Your task to perform on an android device: Go to Google maps Image 0: 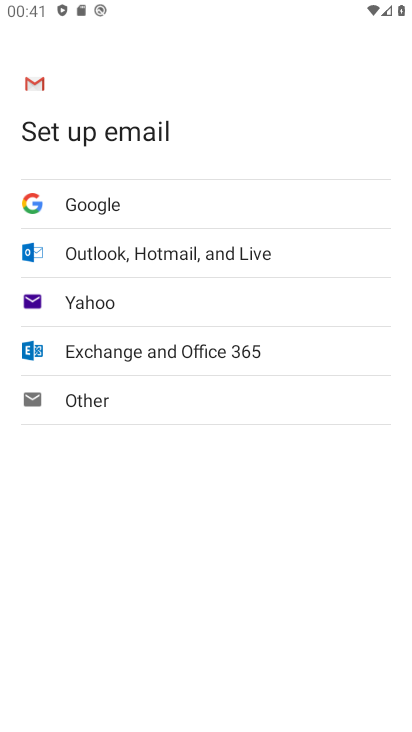
Step 0: press home button
Your task to perform on an android device: Go to Google maps Image 1: 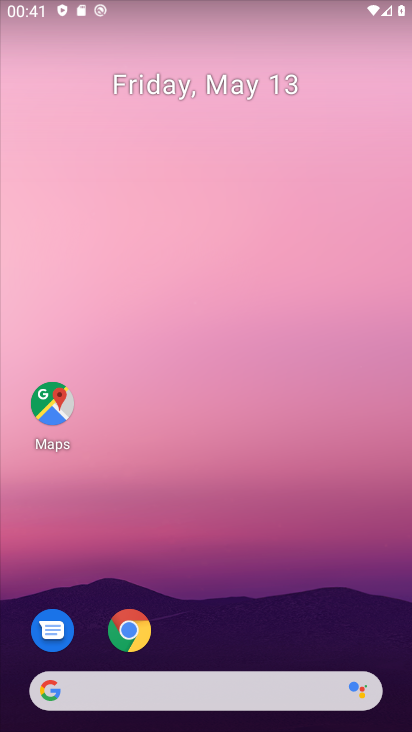
Step 1: drag from (247, 702) to (408, 213)
Your task to perform on an android device: Go to Google maps Image 2: 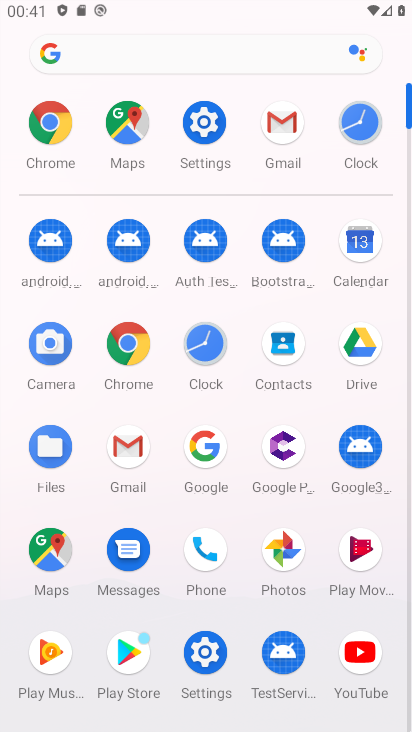
Step 2: click (53, 560)
Your task to perform on an android device: Go to Google maps Image 3: 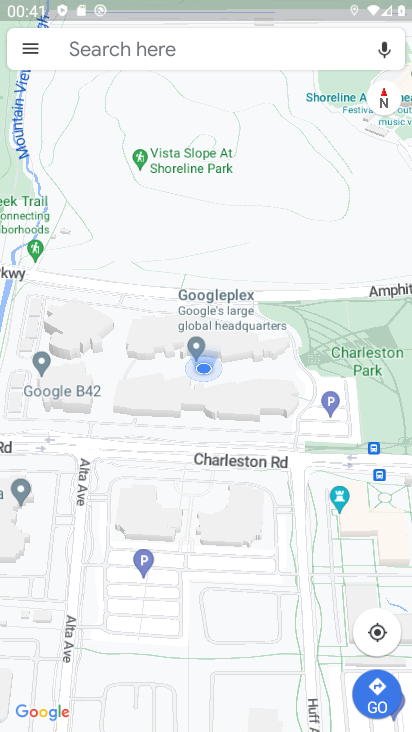
Step 3: click (375, 627)
Your task to perform on an android device: Go to Google maps Image 4: 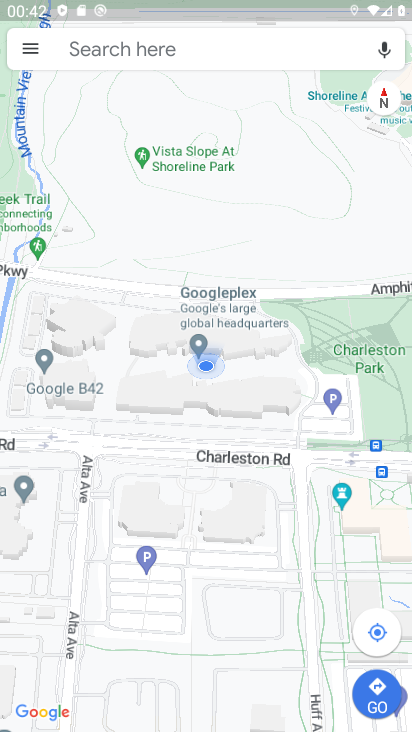
Step 4: task complete